Your task to perform on an android device: Add logitech g933 to the cart on costco.com Image 0: 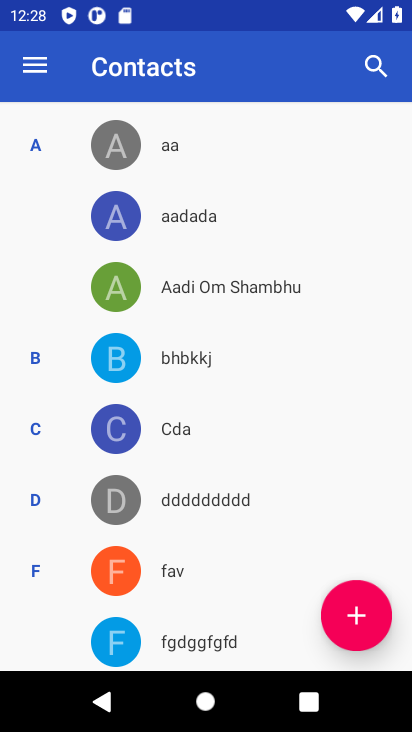
Step 0: press home button
Your task to perform on an android device: Add logitech g933 to the cart on costco.com Image 1: 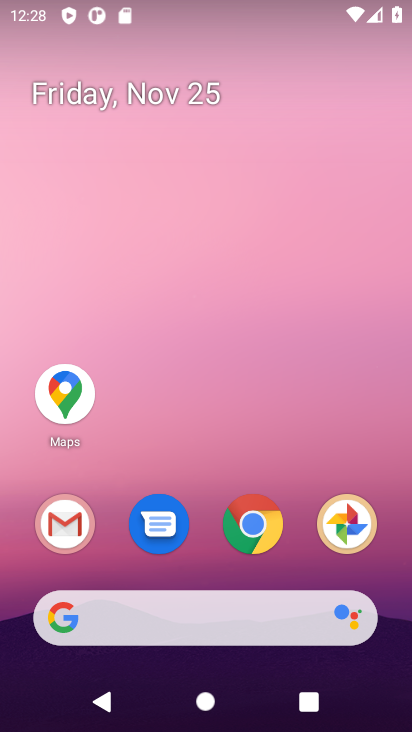
Step 1: click (256, 535)
Your task to perform on an android device: Add logitech g933 to the cart on costco.com Image 2: 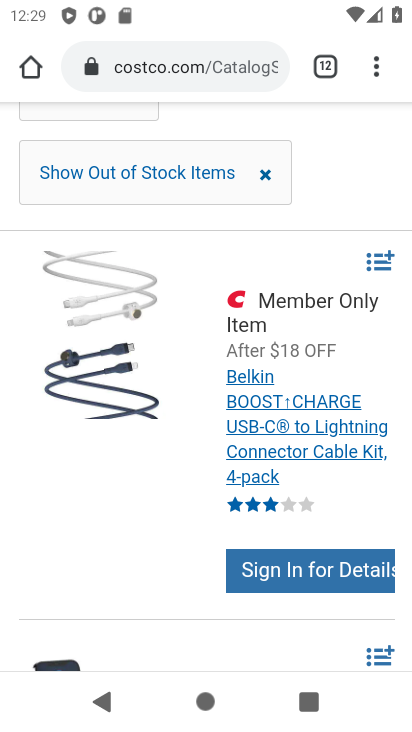
Step 2: drag from (176, 228) to (142, 556)
Your task to perform on an android device: Add logitech g933 to the cart on costco.com Image 3: 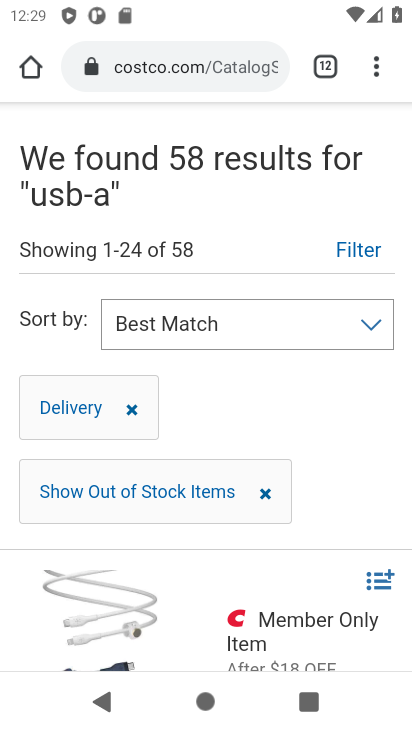
Step 3: drag from (240, 182) to (236, 359)
Your task to perform on an android device: Add logitech g933 to the cart on costco.com Image 4: 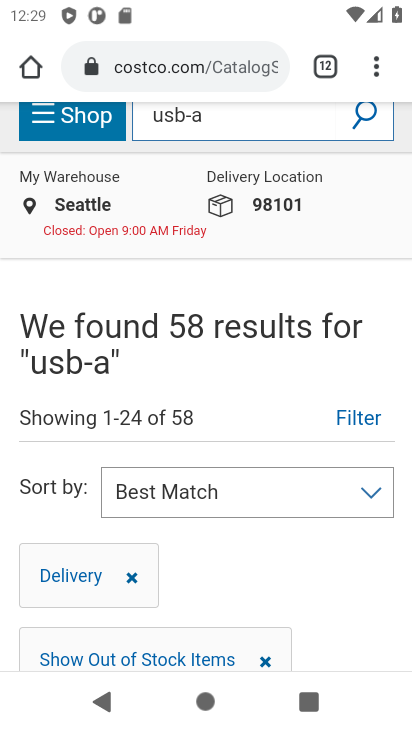
Step 4: drag from (213, 123) to (198, 298)
Your task to perform on an android device: Add logitech g933 to the cart on costco.com Image 5: 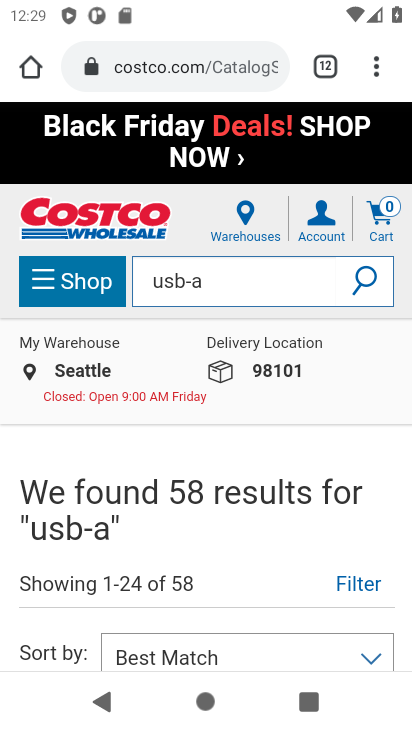
Step 5: click (214, 279)
Your task to perform on an android device: Add logitech g933 to the cart on costco.com Image 6: 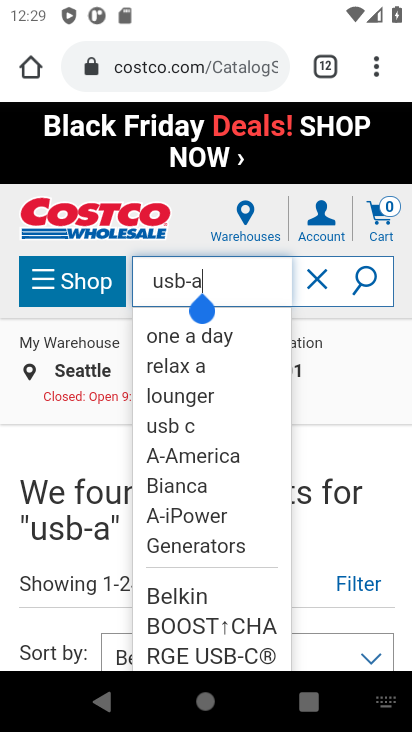
Step 6: click (318, 286)
Your task to perform on an android device: Add logitech g933 to the cart on costco.com Image 7: 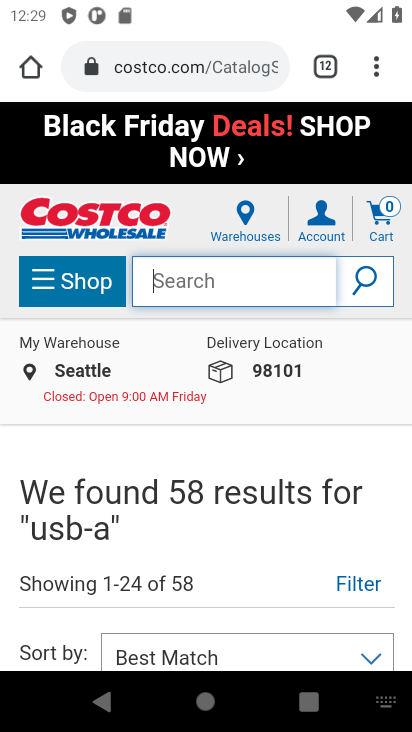
Step 7: type "logitech g933"
Your task to perform on an android device: Add logitech g933 to the cart on costco.com Image 8: 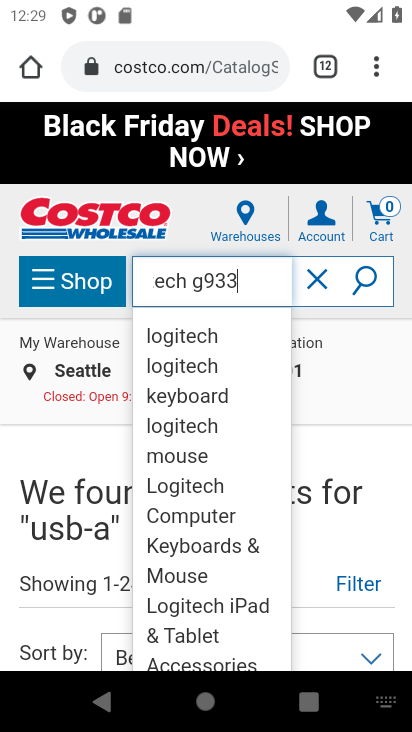
Step 8: click (360, 277)
Your task to perform on an android device: Add logitech g933 to the cart on costco.com Image 9: 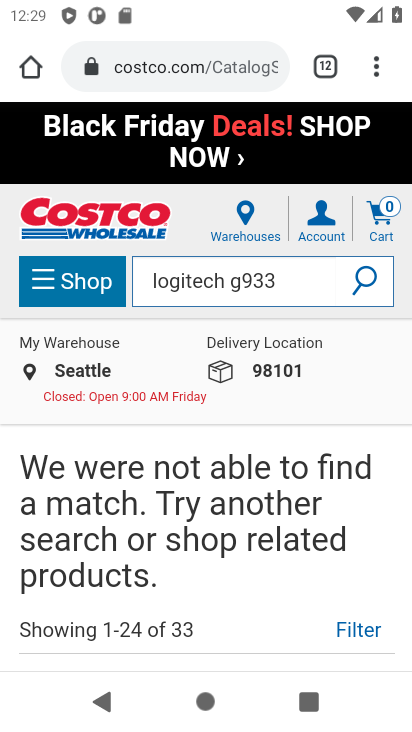
Step 9: task complete